Your task to perform on an android device: Open settings on Google Maps Image 0: 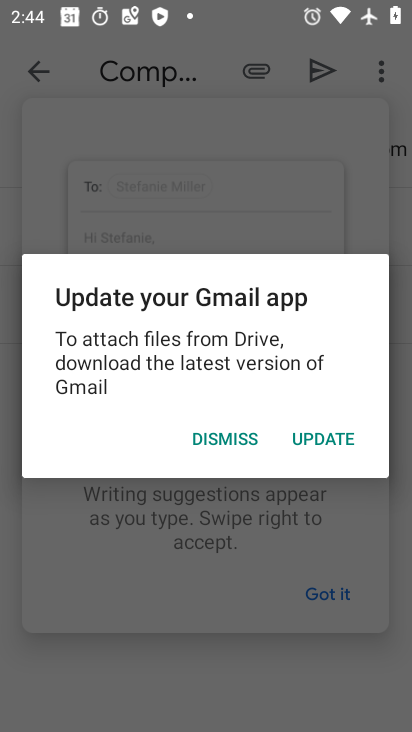
Step 0: press home button
Your task to perform on an android device: Open settings on Google Maps Image 1: 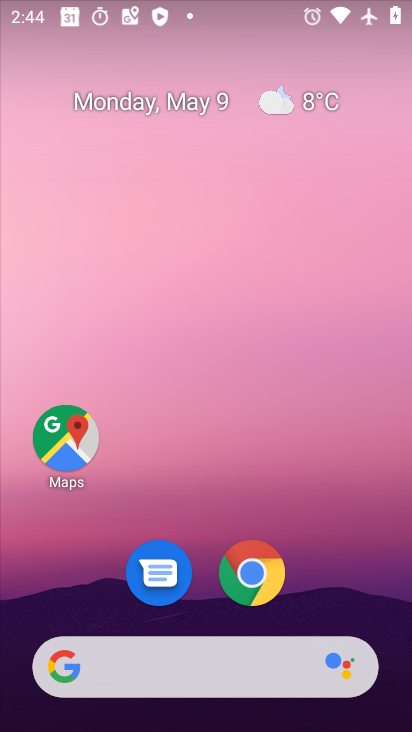
Step 1: drag from (190, 672) to (330, 173)
Your task to perform on an android device: Open settings on Google Maps Image 2: 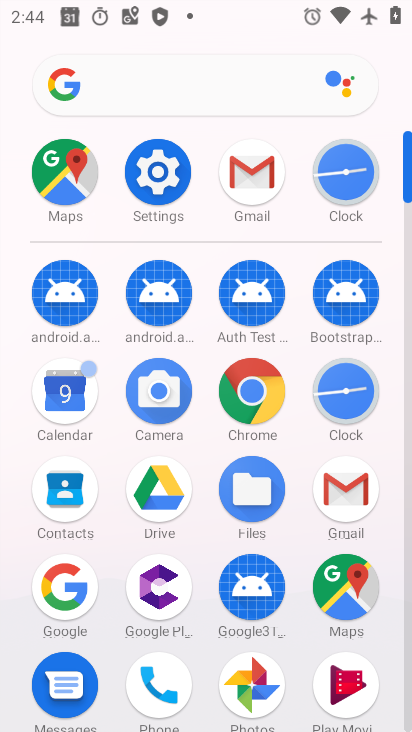
Step 2: click (63, 191)
Your task to perform on an android device: Open settings on Google Maps Image 3: 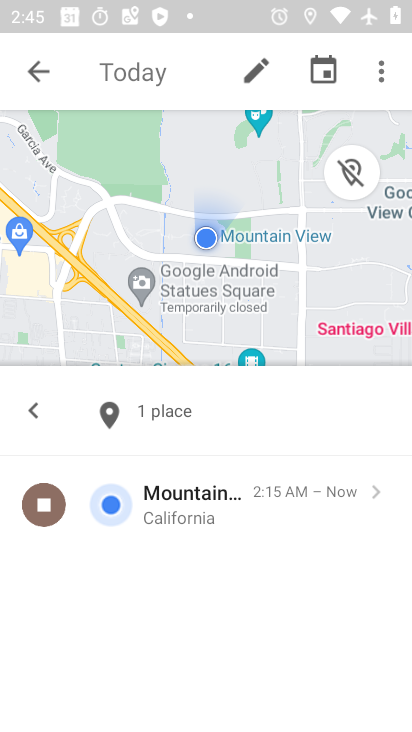
Step 3: click (35, 73)
Your task to perform on an android device: Open settings on Google Maps Image 4: 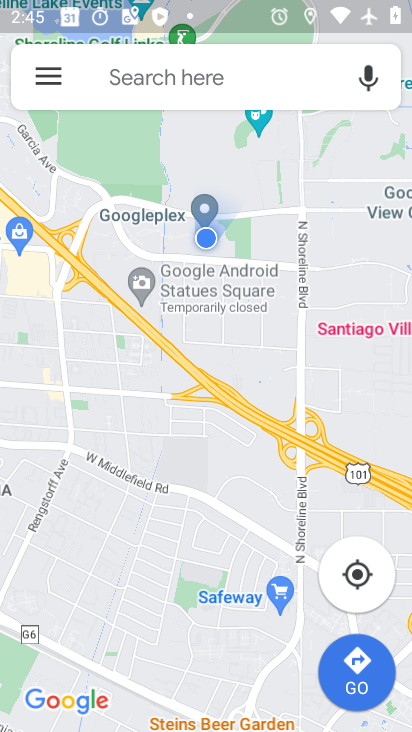
Step 4: click (49, 78)
Your task to perform on an android device: Open settings on Google Maps Image 5: 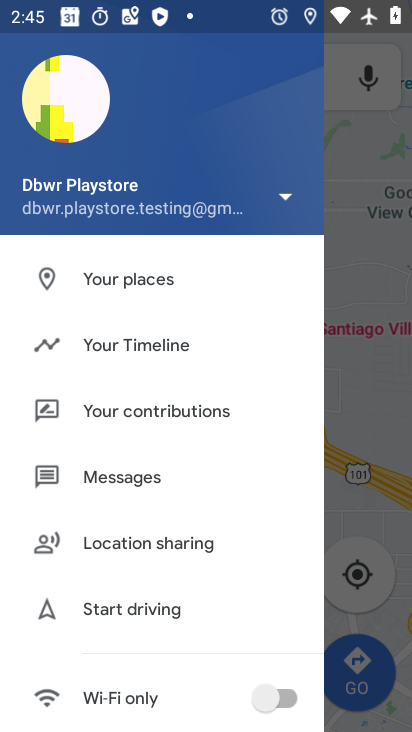
Step 5: drag from (129, 628) to (302, 119)
Your task to perform on an android device: Open settings on Google Maps Image 6: 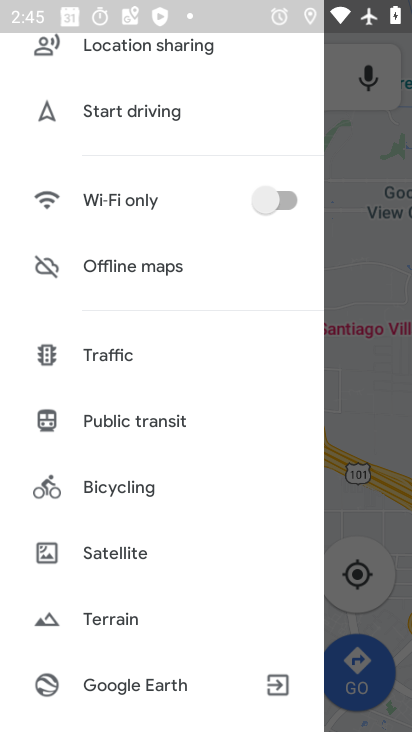
Step 6: drag from (111, 646) to (311, 10)
Your task to perform on an android device: Open settings on Google Maps Image 7: 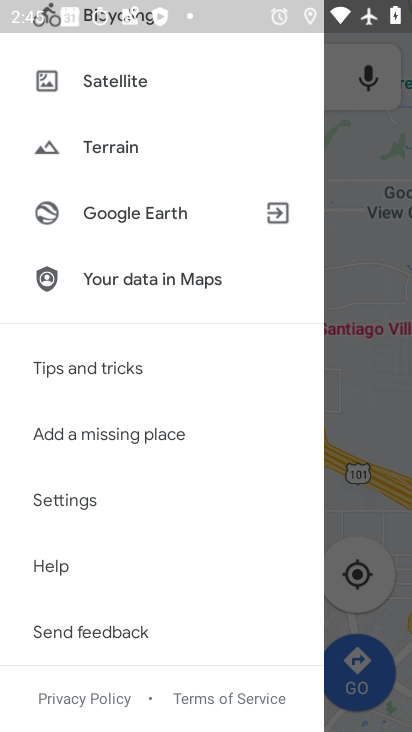
Step 7: click (71, 505)
Your task to perform on an android device: Open settings on Google Maps Image 8: 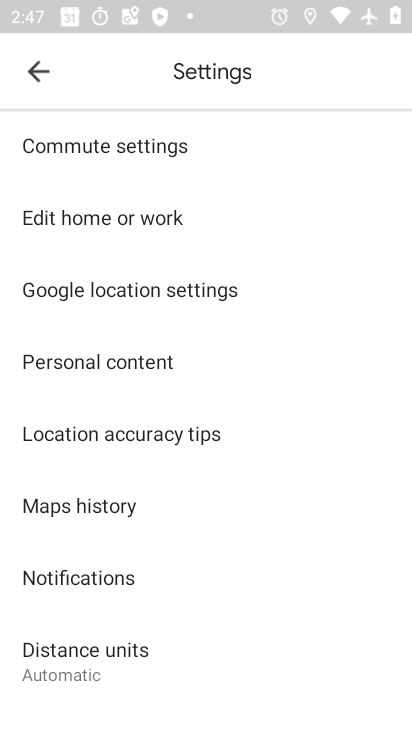
Step 8: task complete